Your task to perform on an android device: check data usage Image 0: 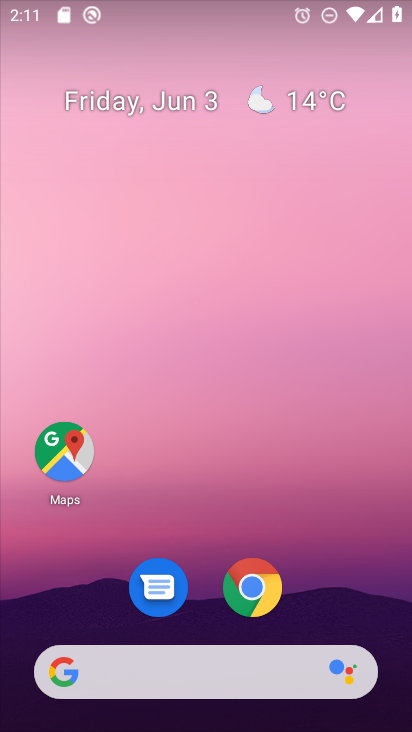
Step 0: drag from (321, 599) to (301, 69)
Your task to perform on an android device: check data usage Image 1: 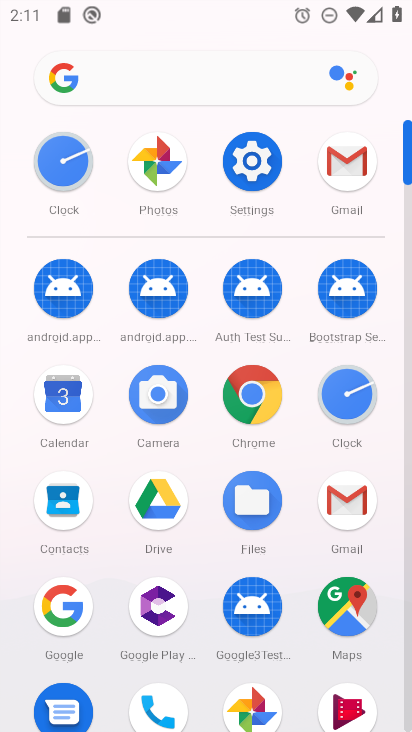
Step 1: click (252, 208)
Your task to perform on an android device: check data usage Image 2: 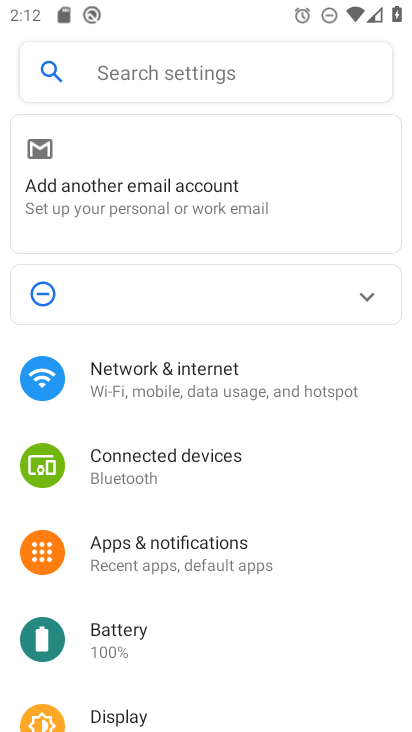
Step 2: click (177, 395)
Your task to perform on an android device: check data usage Image 3: 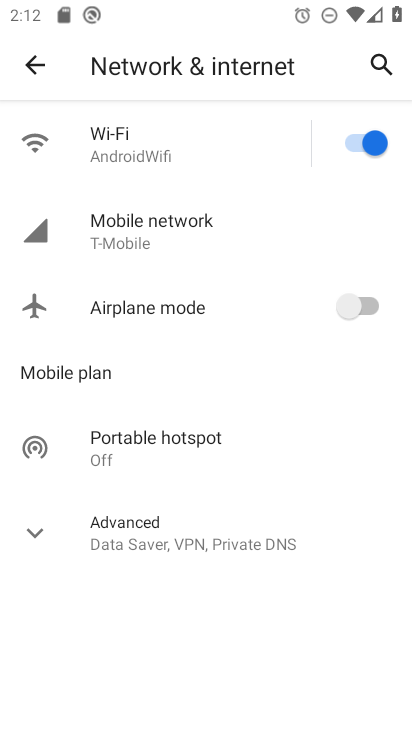
Step 3: click (167, 529)
Your task to perform on an android device: check data usage Image 4: 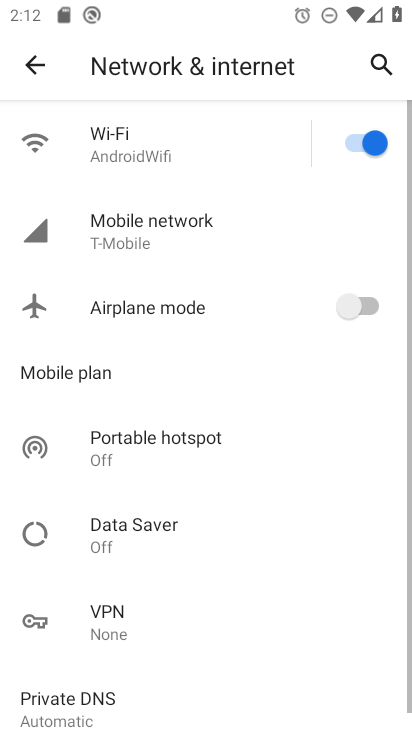
Step 4: click (171, 227)
Your task to perform on an android device: check data usage Image 5: 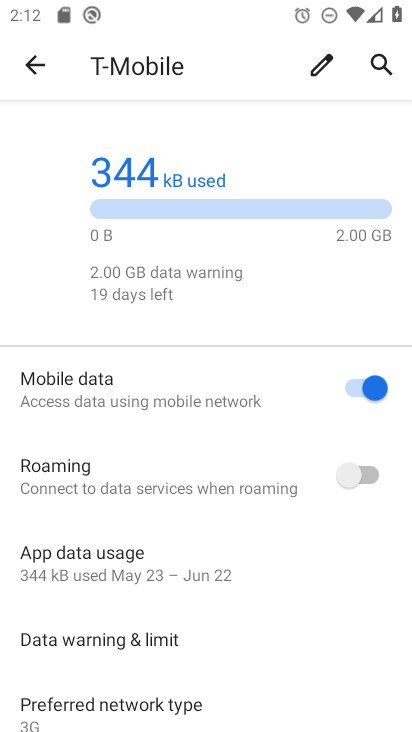
Step 5: click (106, 570)
Your task to perform on an android device: check data usage Image 6: 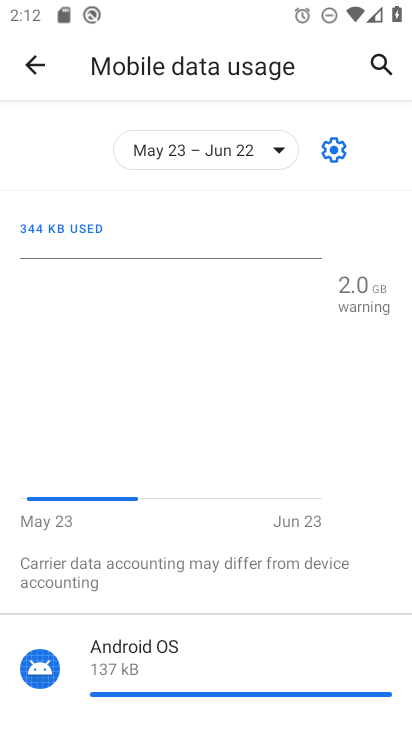
Step 6: task complete